Your task to perform on an android device: turn off picture-in-picture Image 0: 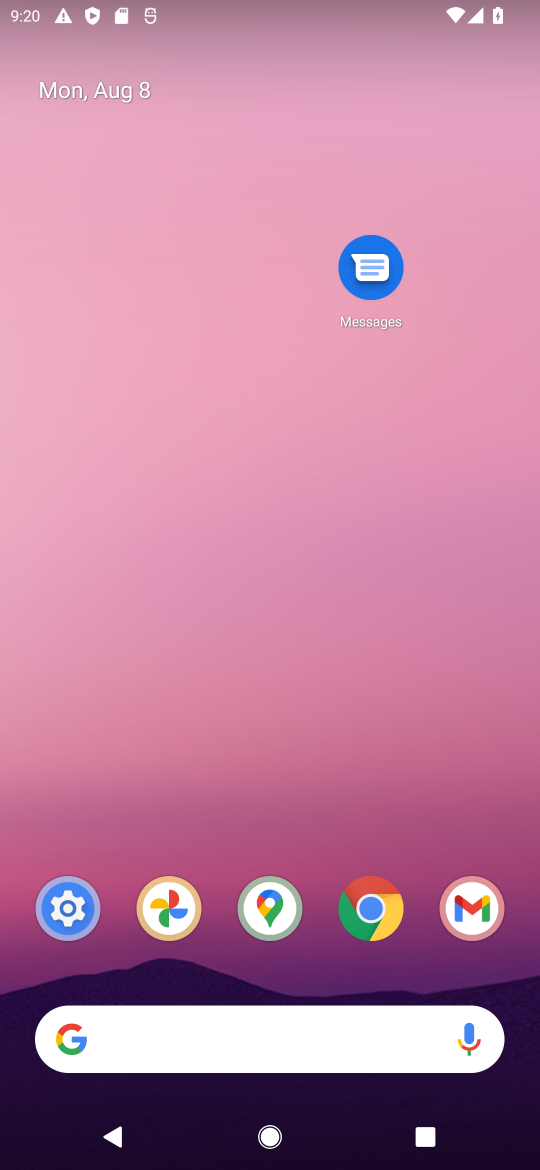
Step 0: drag from (266, 842) to (248, 206)
Your task to perform on an android device: turn off picture-in-picture Image 1: 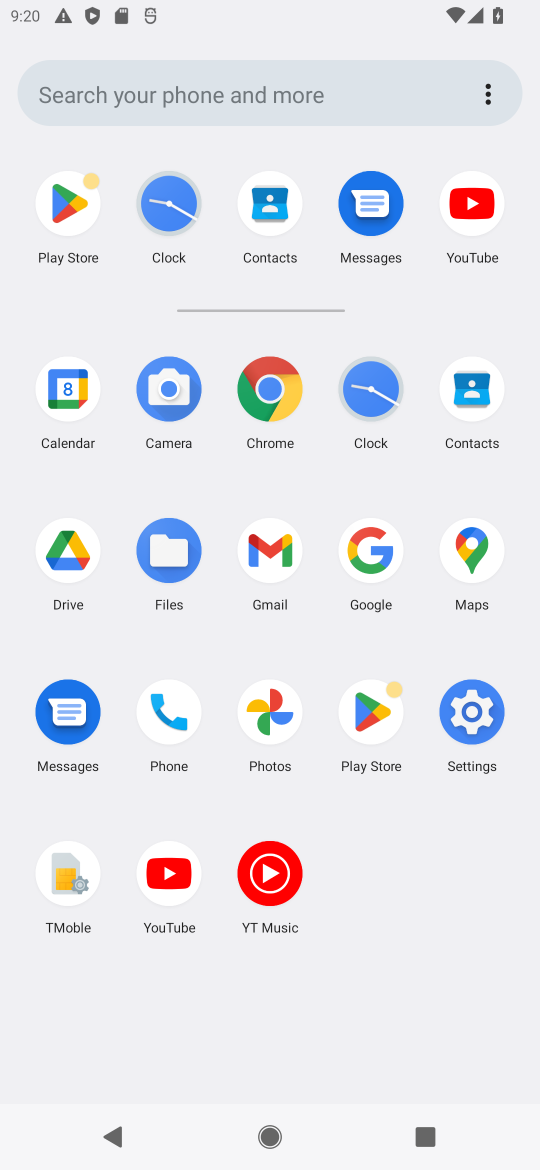
Step 1: click (279, 393)
Your task to perform on an android device: turn off picture-in-picture Image 2: 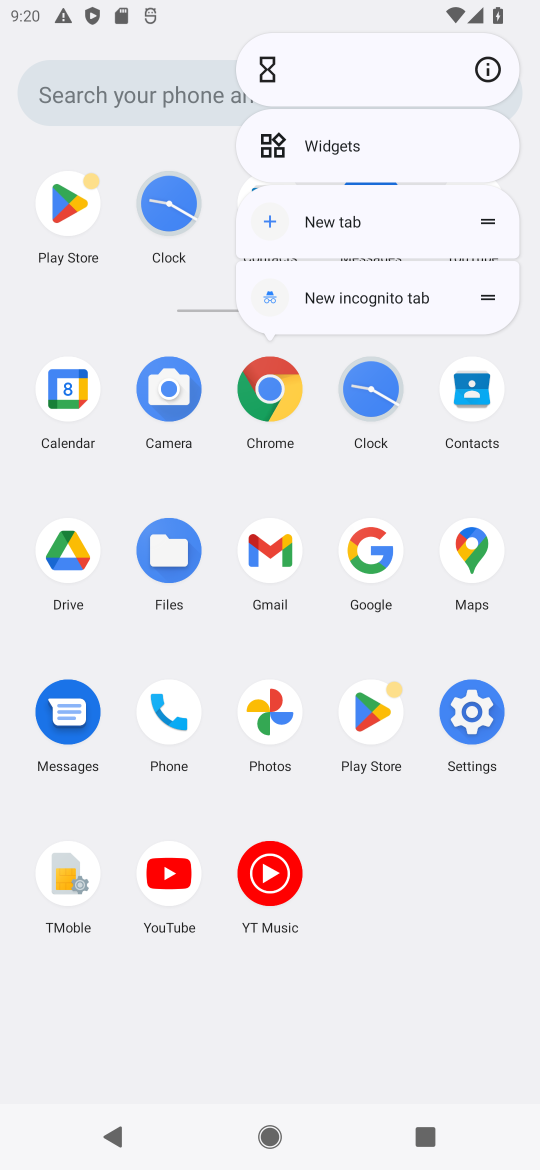
Step 2: click (492, 67)
Your task to perform on an android device: turn off picture-in-picture Image 3: 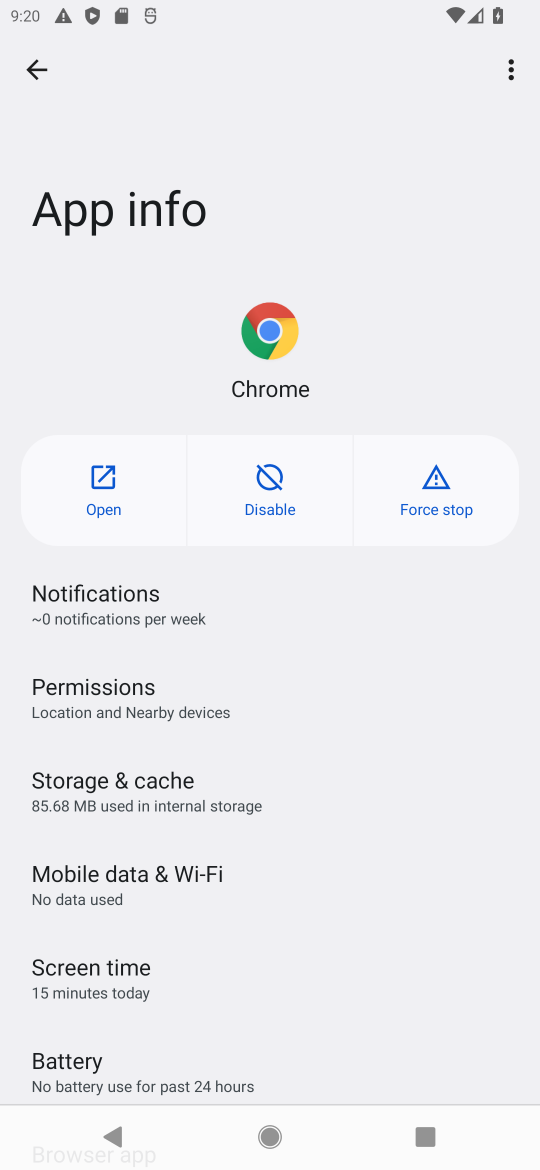
Step 3: drag from (152, 1012) to (184, 117)
Your task to perform on an android device: turn off picture-in-picture Image 4: 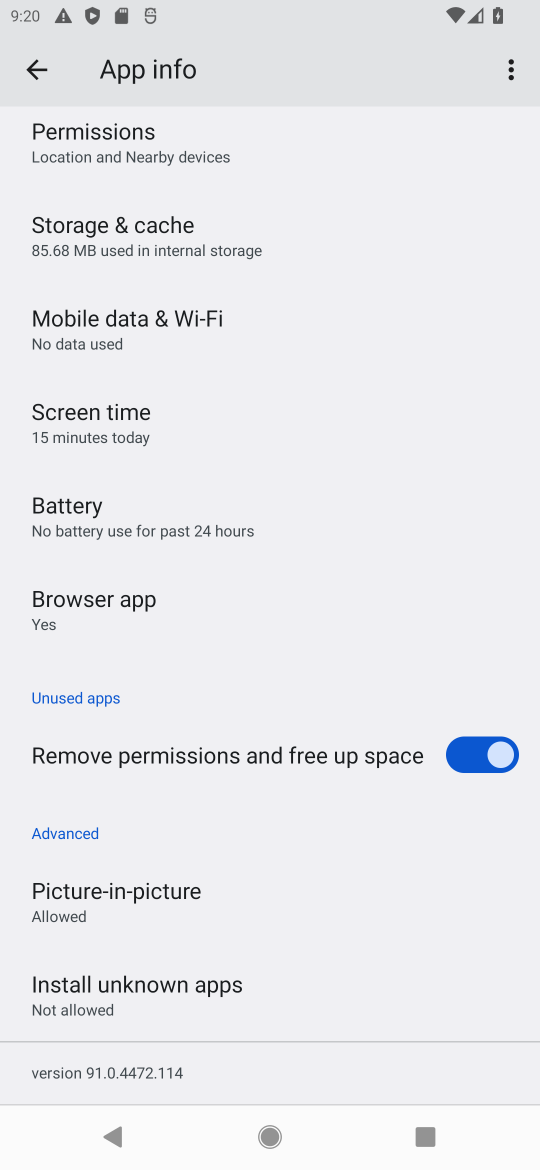
Step 4: click (128, 945)
Your task to perform on an android device: turn off picture-in-picture Image 5: 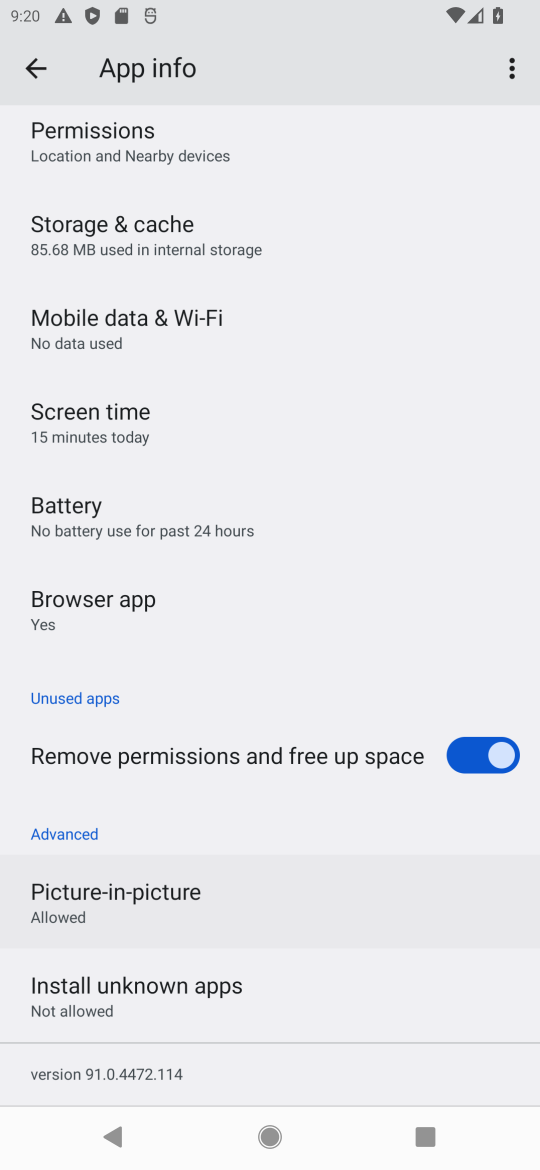
Step 5: click (103, 893)
Your task to perform on an android device: turn off picture-in-picture Image 6: 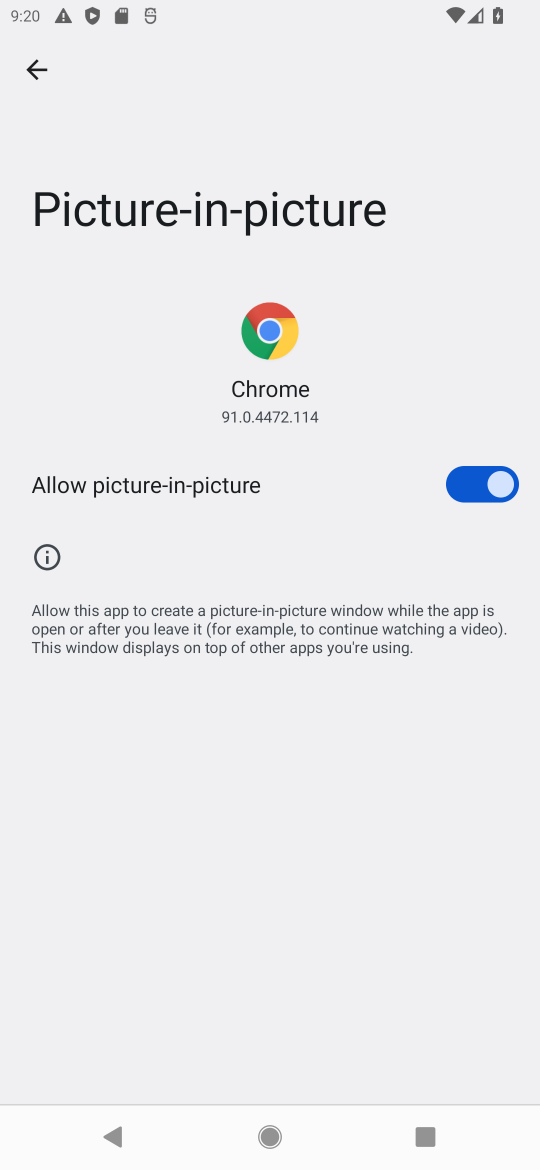
Step 6: click (473, 484)
Your task to perform on an android device: turn off picture-in-picture Image 7: 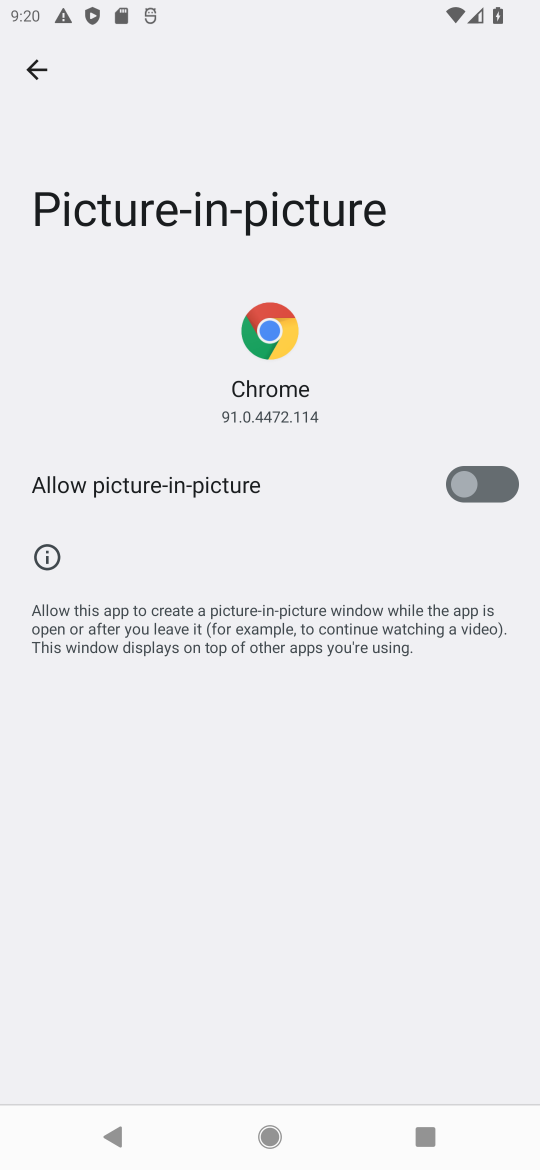
Step 7: task complete